Your task to perform on an android device: turn notification dots on Image 0: 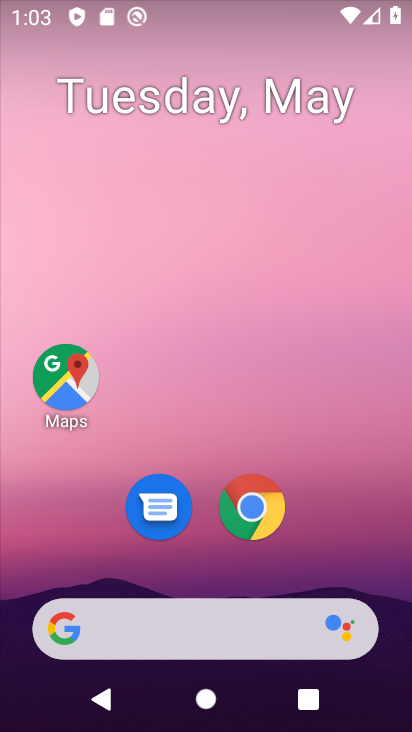
Step 0: drag from (395, 584) to (278, 143)
Your task to perform on an android device: turn notification dots on Image 1: 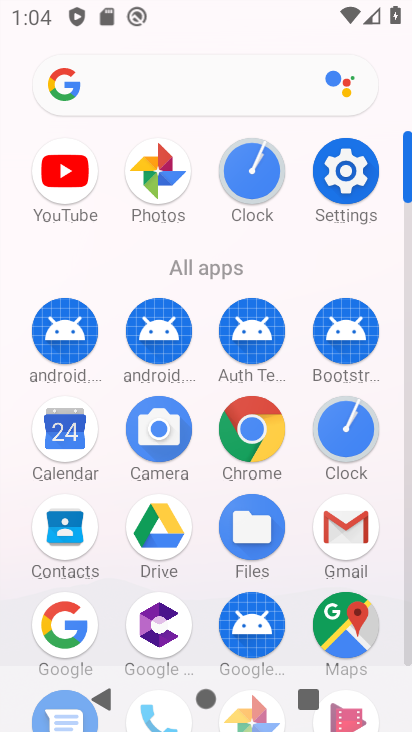
Step 1: click (342, 177)
Your task to perform on an android device: turn notification dots on Image 2: 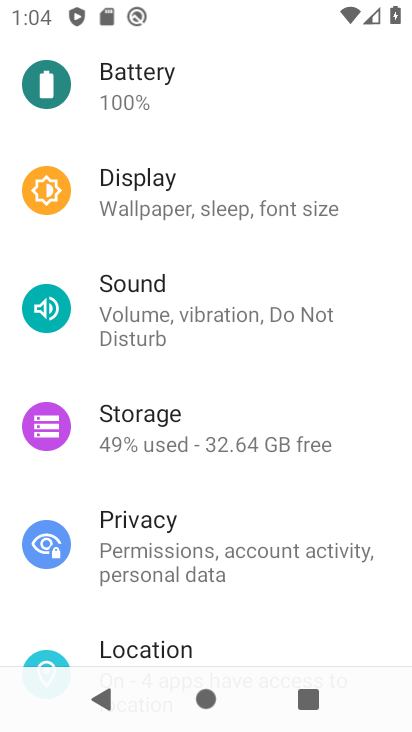
Step 2: drag from (249, 124) to (234, 554)
Your task to perform on an android device: turn notification dots on Image 3: 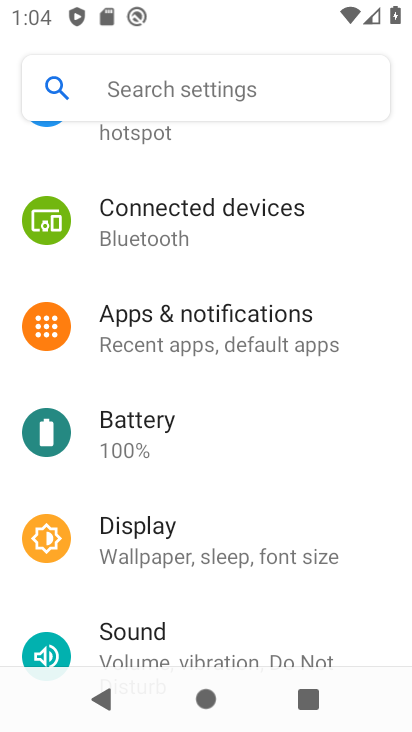
Step 3: click (209, 309)
Your task to perform on an android device: turn notification dots on Image 4: 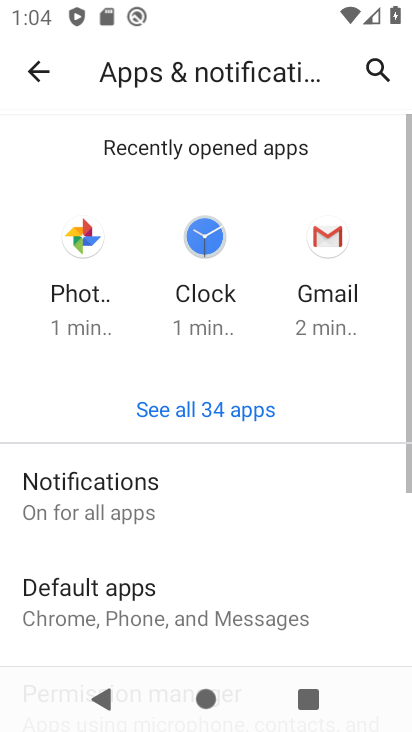
Step 4: click (225, 508)
Your task to perform on an android device: turn notification dots on Image 5: 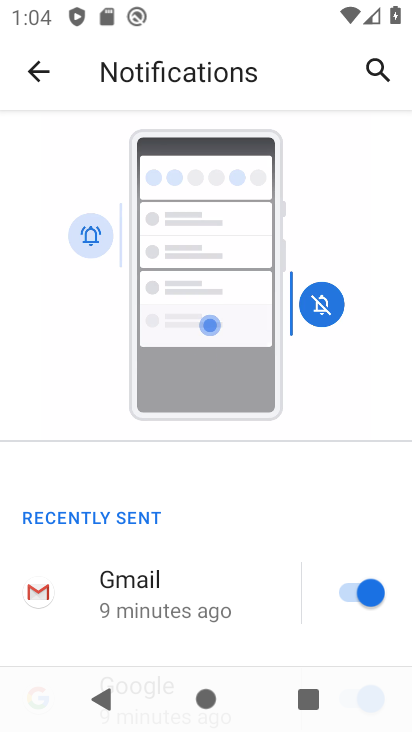
Step 5: drag from (239, 624) to (176, 207)
Your task to perform on an android device: turn notification dots on Image 6: 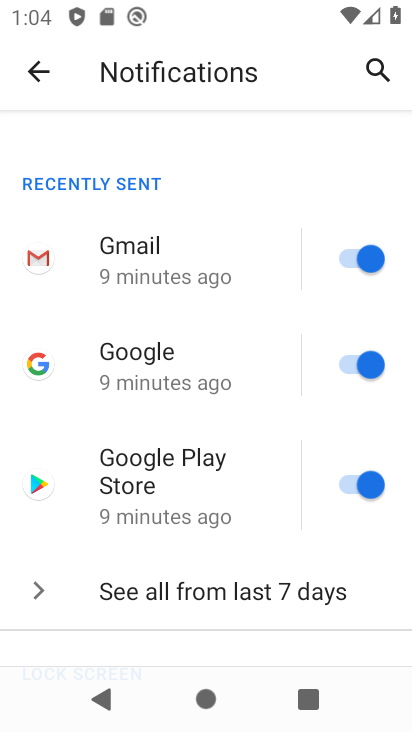
Step 6: drag from (237, 547) to (201, 124)
Your task to perform on an android device: turn notification dots on Image 7: 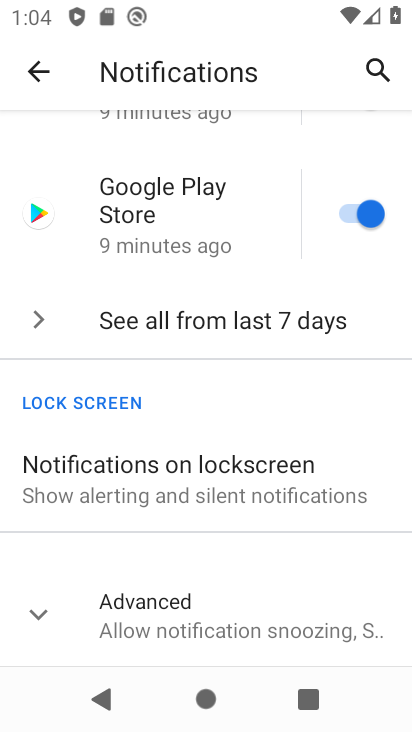
Step 7: click (245, 596)
Your task to perform on an android device: turn notification dots on Image 8: 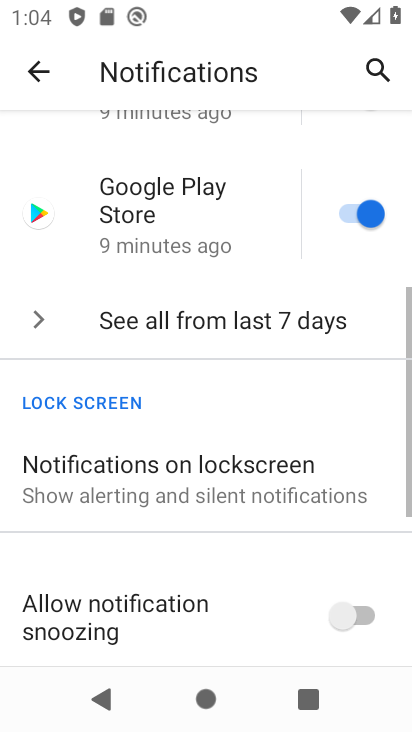
Step 8: task complete